Your task to perform on an android device: install app "Cash App" Image 0: 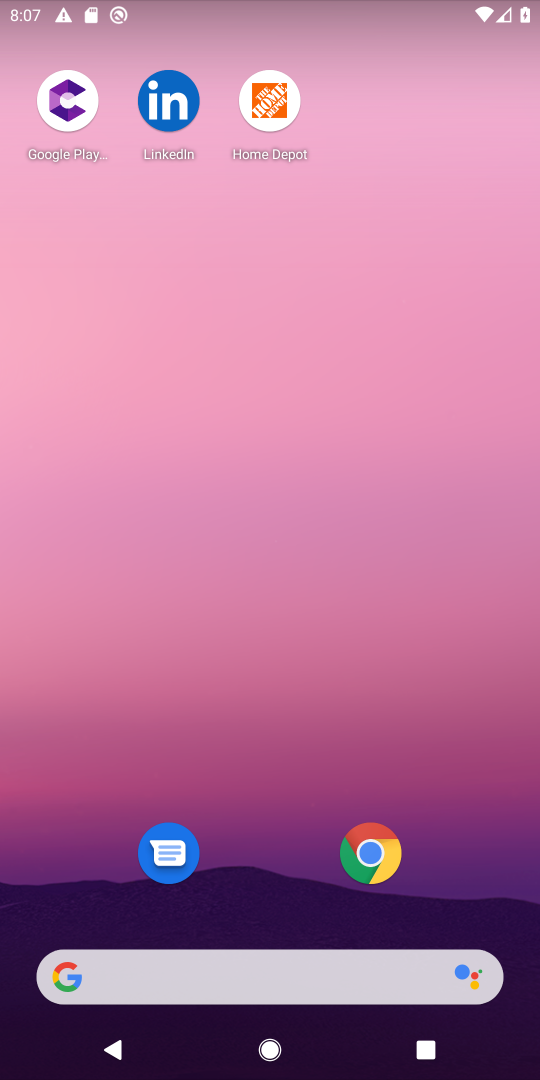
Step 0: drag from (247, 863) to (329, 382)
Your task to perform on an android device: install app "Cash App" Image 1: 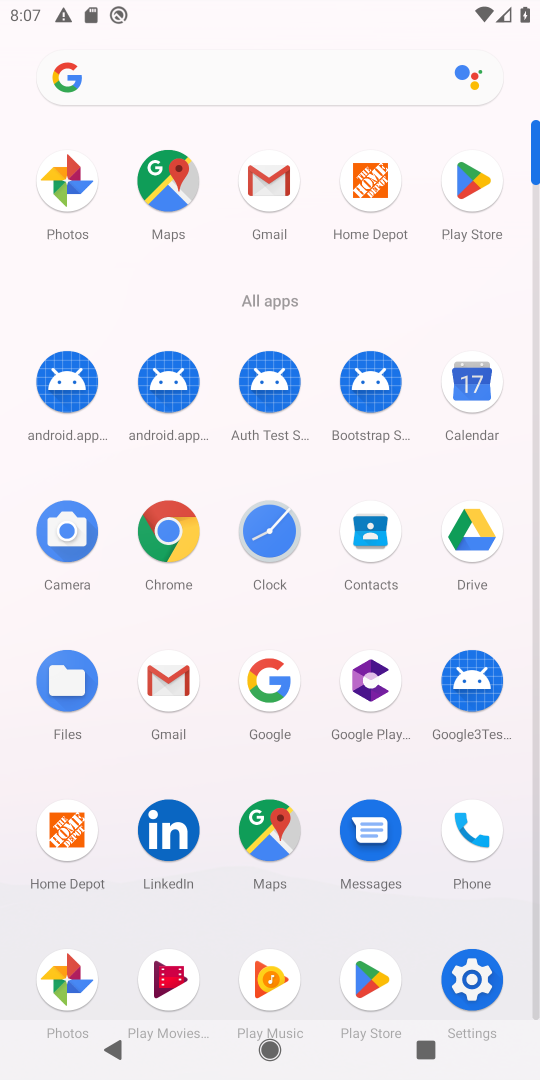
Step 1: click (458, 184)
Your task to perform on an android device: install app "Cash App" Image 2: 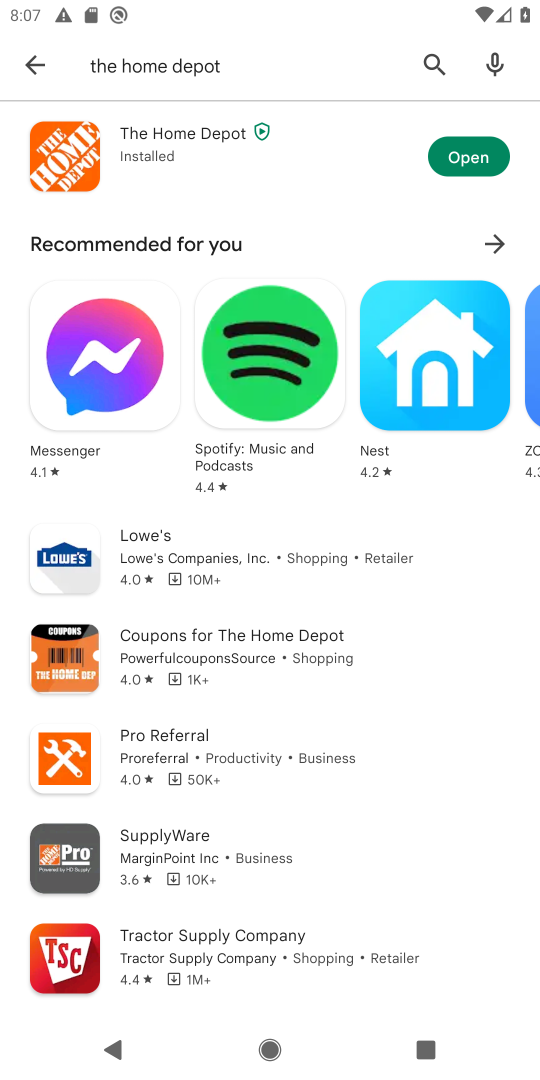
Step 2: click (436, 66)
Your task to perform on an android device: install app "Cash App" Image 3: 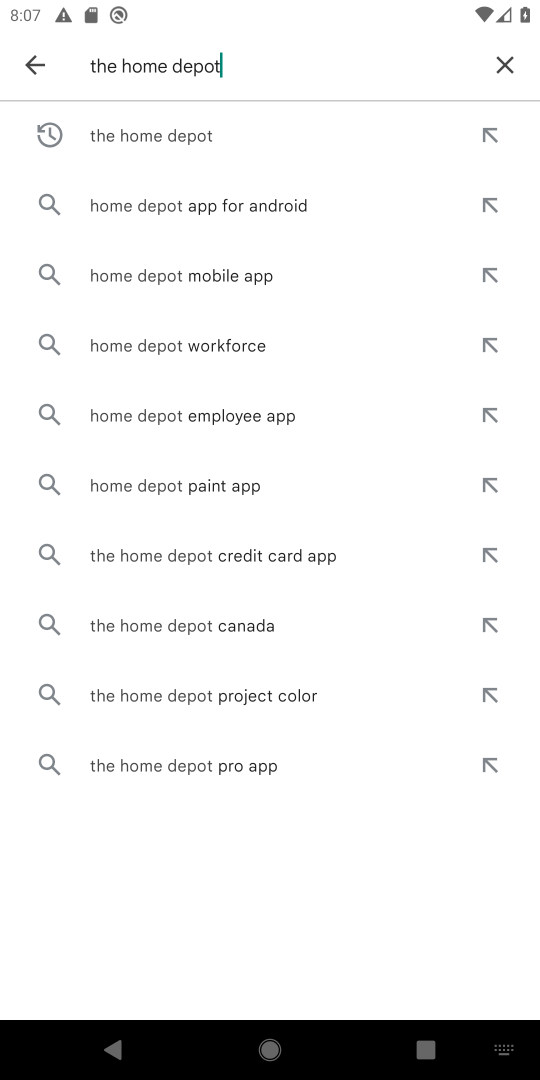
Step 3: click (496, 52)
Your task to perform on an android device: install app "Cash App" Image 4: 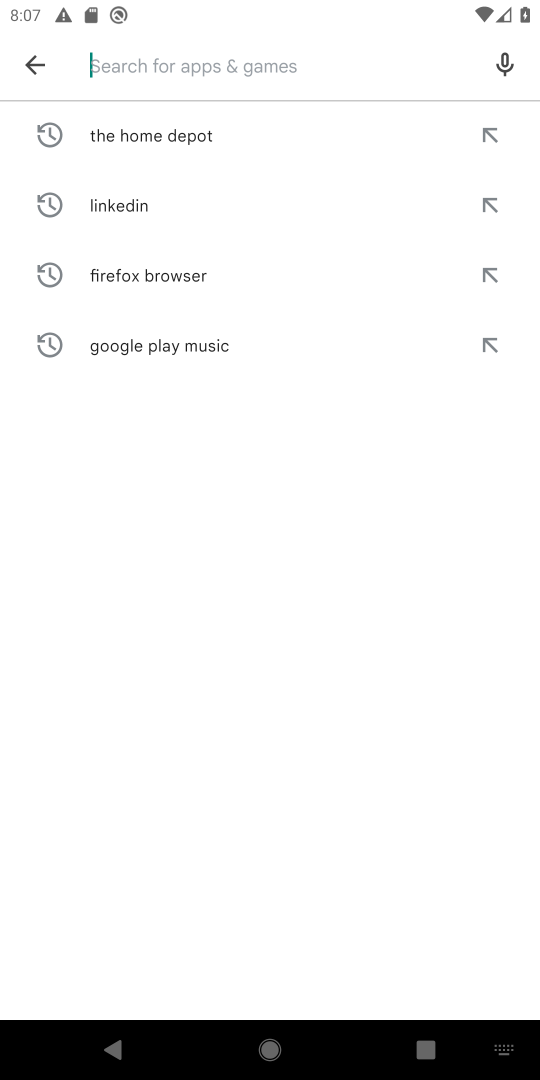
Step 4: type "Cash App"
Your task to perform on an android device: install app "Cash App" Image 5: 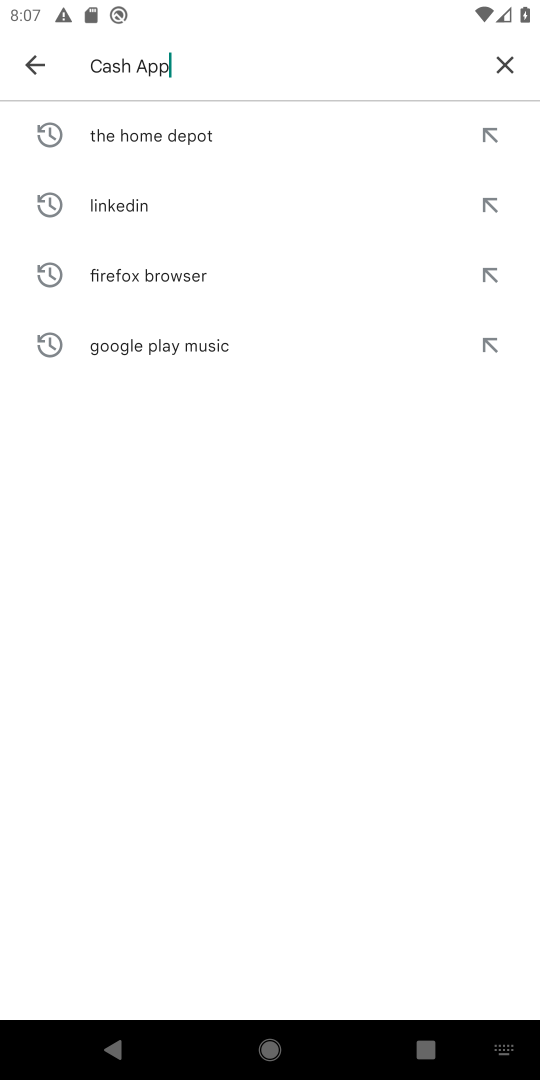
Step 5: type ""
Your task to perform on an android device: install app "Cash App" Image 6: 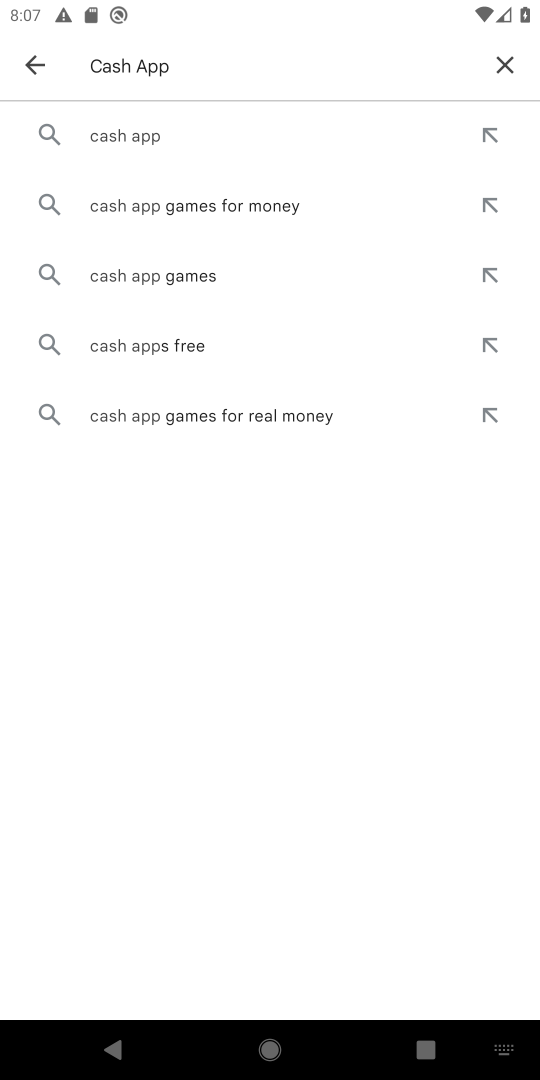
Step 6: click (156, 125)
Your task to perform on an android device: install app "Cash App" Image 7: 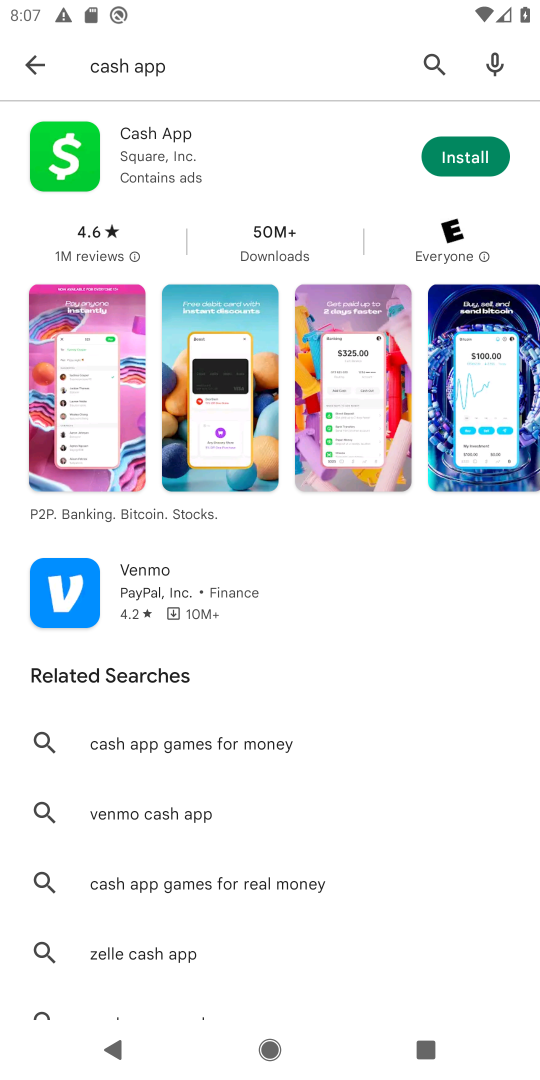
Step 7: click (451, 156)
Your task to perform on an android device: install app "Cash App" Image 8: 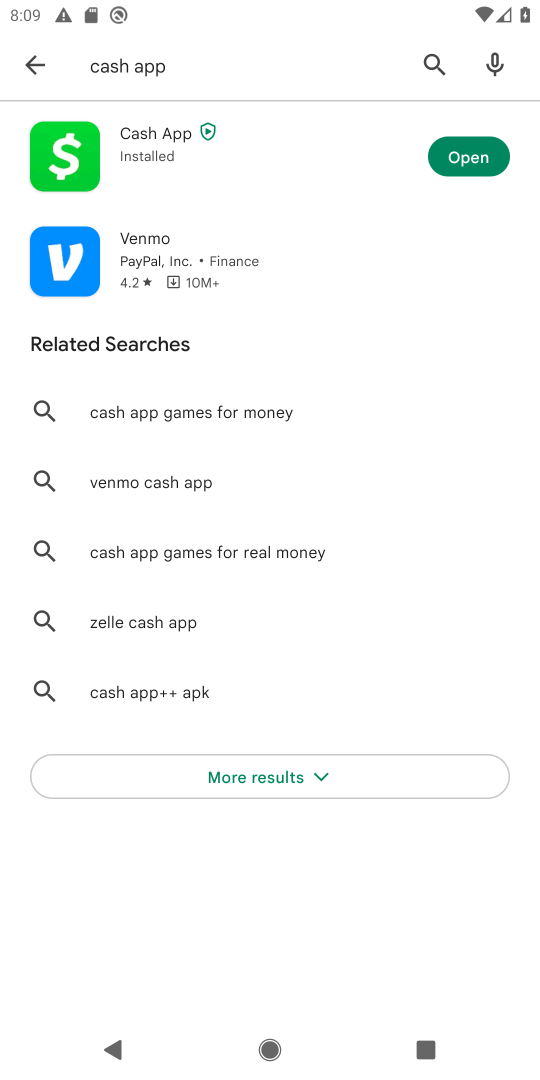
Step 8: task complete